Your task to perform on an android device: turn on the 24-hour format for clock Image 0: 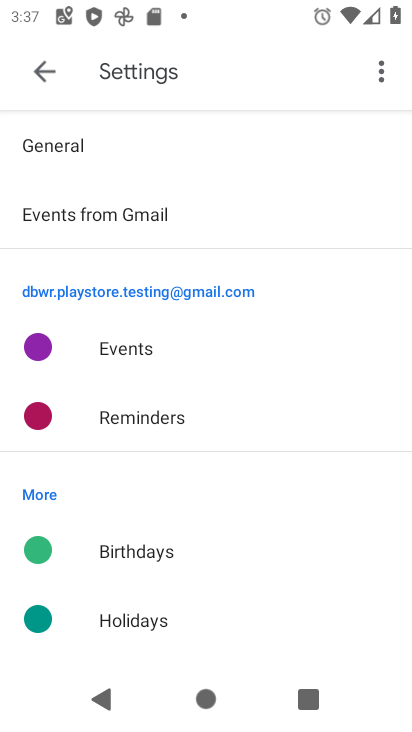
Step 0: press home button
Your task to perform on an android device: turn on the 24-hour format for clock Image 1: 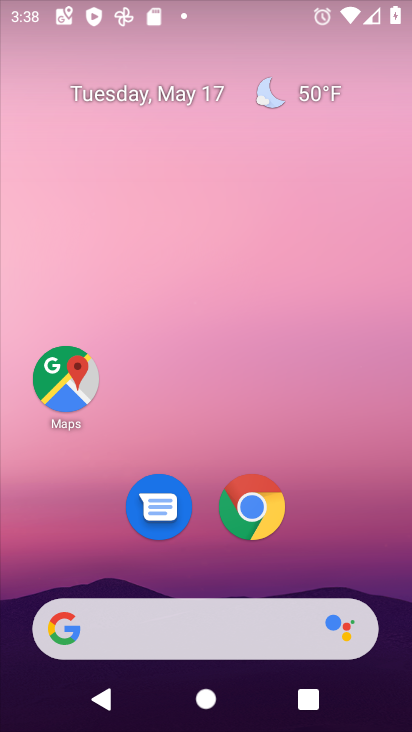
Step 1: drag from (312, 546) to (193, 66)
Your task to perform on an android device: turn on the 24-hour format for clock Image 2: 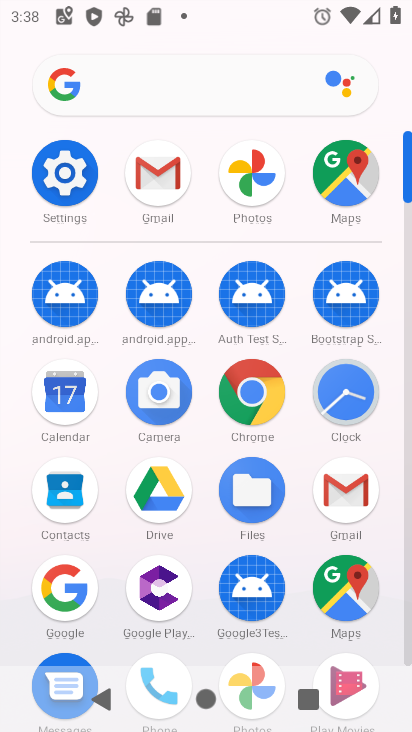
Step 2: click (351, 392)
Your task to perform on an android device: turn on the 24-hour format for clock Image 3: 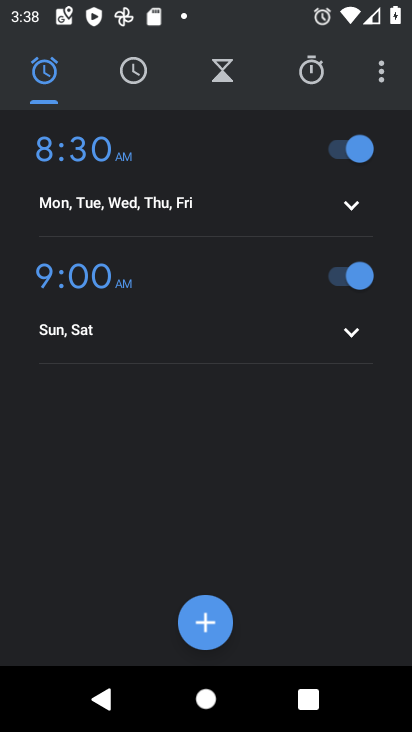
Step 3: click (385, 73)
Your task to perform on an android device: turn on the 24-hour format for clock Image 4: 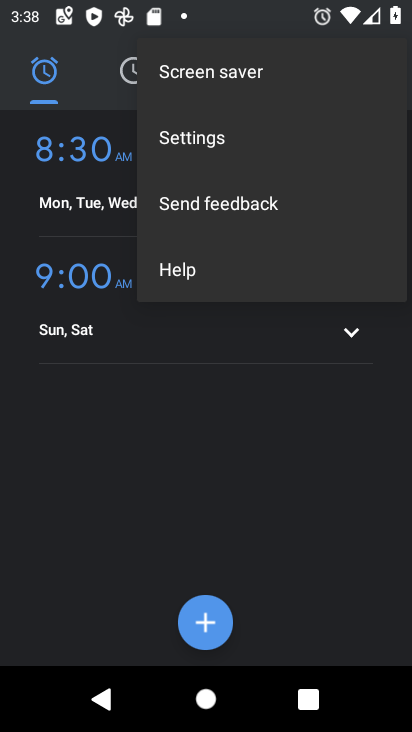
Step 4: click (185, 131)
Your task to perform on an android device: turn on the 24-hour format for clock Image 5: 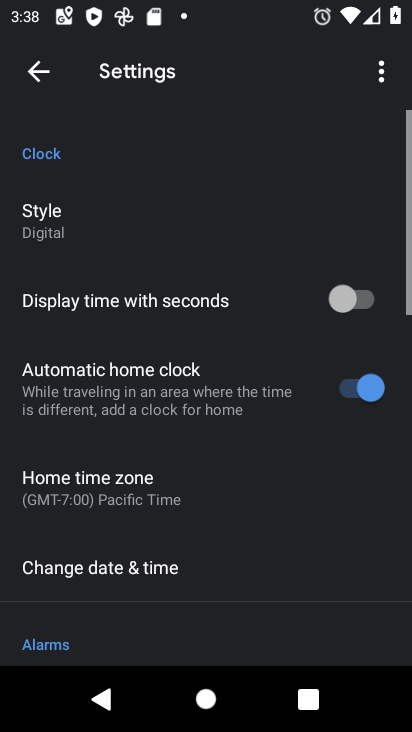
Step 5: click (229, 565)
Your task to perform on an android device: turn on the 24-hour format for clock Image 6: 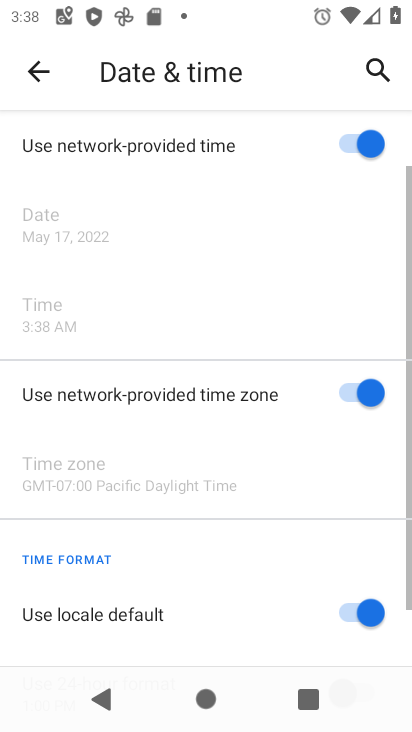
Step 6: drag from (308, 609) to (263, 243)
Your task to perform on an android device: turn on the 24-hour format for clock Image 7: 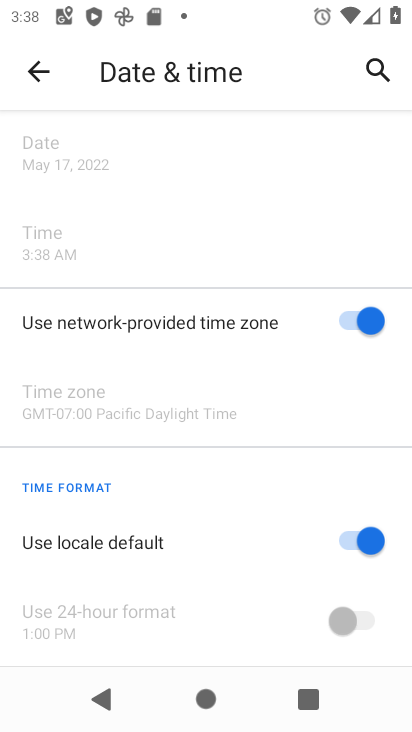
Step 7: click (369, 543)
Your task to perform on an android device: turn on the 24-hour format for clock Image 8: 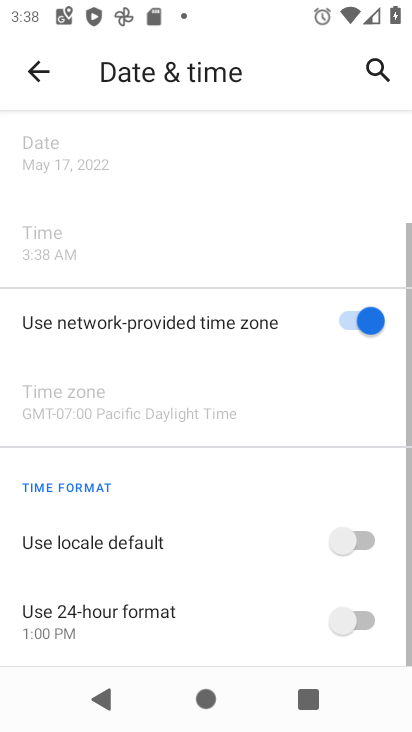
Step 8: click (352, 628)
Your task to perform on an android device: turn on the 24-hour format for clock Image 9: 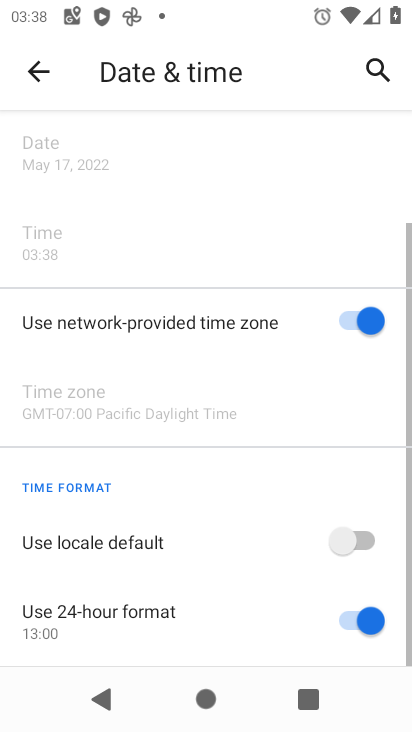
Step 9: task complete